Your task to perform on an android device: What's the weather today? Image 0: 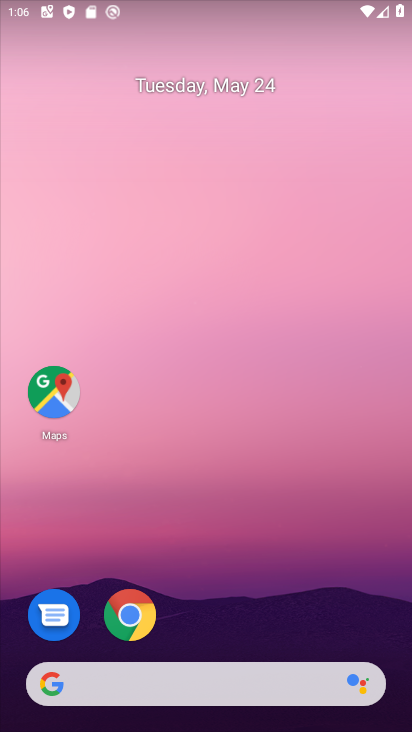
Step 0: press home button
Your task to perform on an android device: What's the weather today? Image 1: 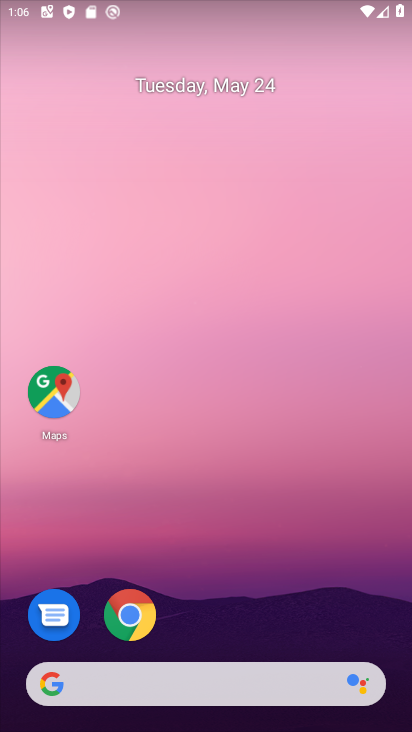
Step 1: drag from (10, 301) to (406, 322)
Your task to perform on an android device: What's the weather today? Image 2: 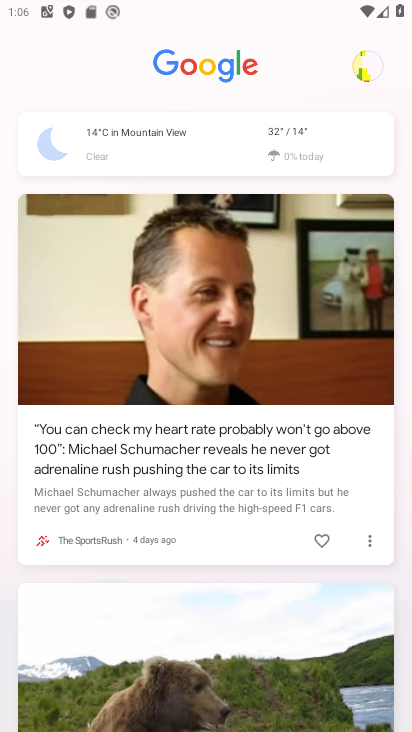
Step 2: drag from (210, 565) to (207, 133)
Your task to perform on an android device: What's the weather today? Image 3: 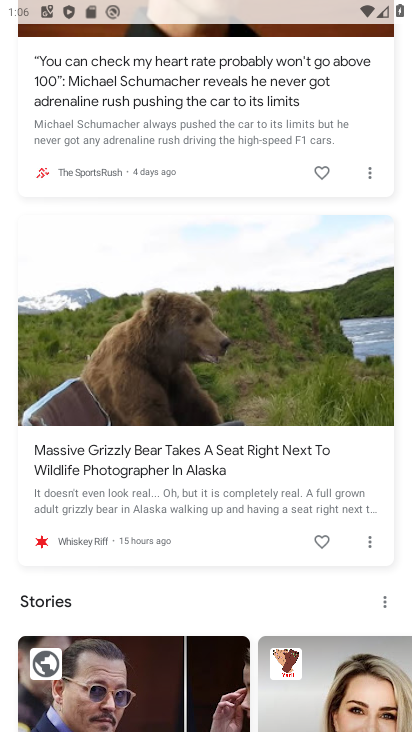
Step 3: drag from (216, 602) to (218, 83)
Your task to perform on an android device: What's the weather today? Image 4: 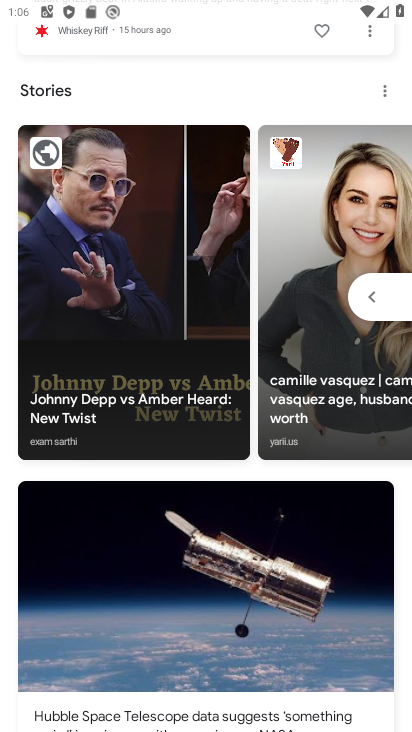
Step 4: drag from (214, 474) to (215, 55)
Your task to perform on an android device: What's the weather today? Image 5: 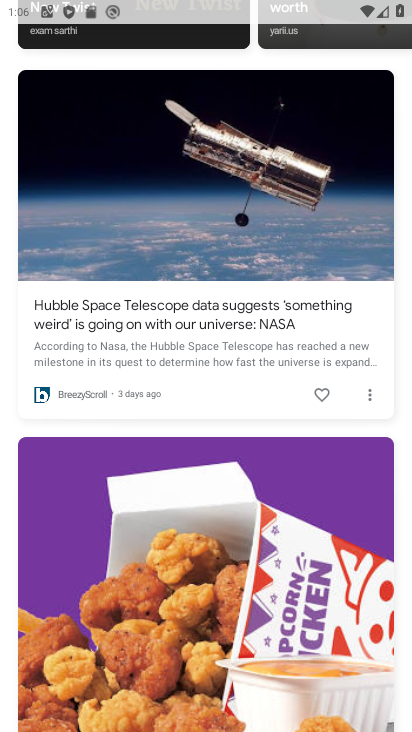
Step 5: drag from (223, 431) to (215, 69)
Your task to perform on an android device: What's the weather today? Image 6: 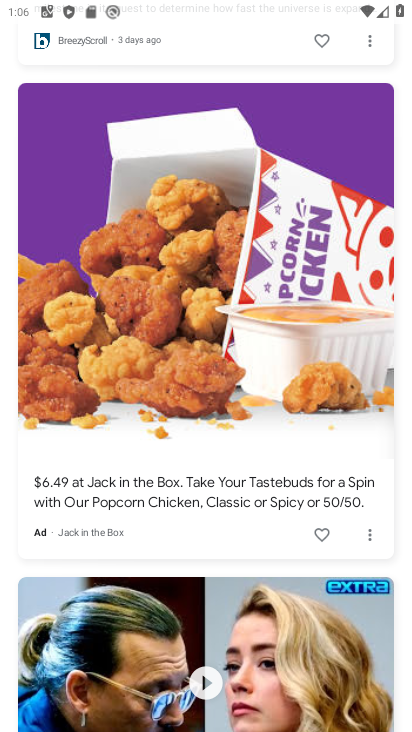
Step 6: drag from (217, 566) to (221, 219)
Your task to perform on an android device: What's the weather today? Image 7: 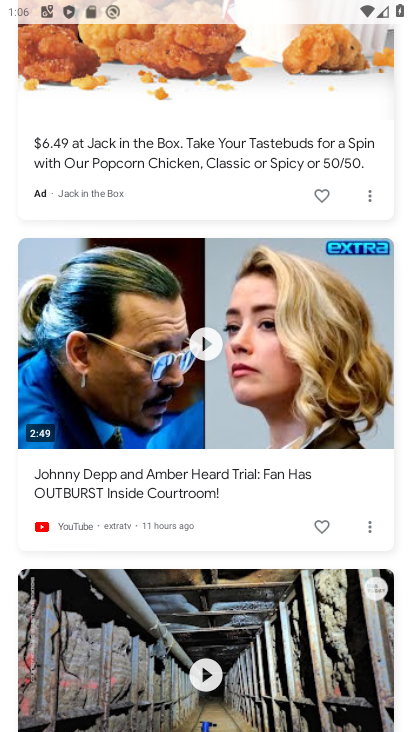
Step 7: drag from (229, 123) to (216, 720)
Your task to perform on an android device: What's the weather today? Image 8: 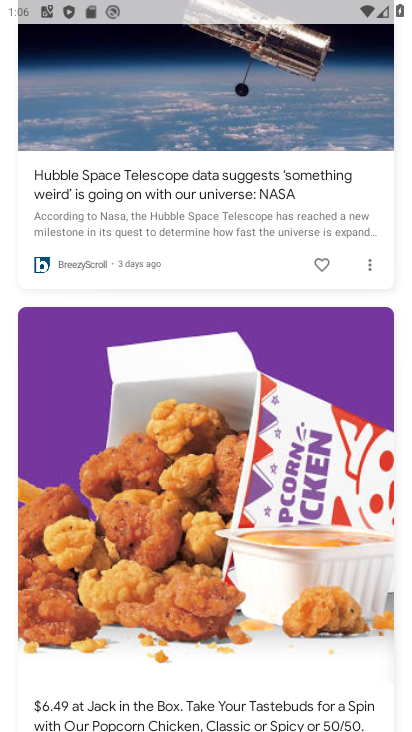
Step 8: drag from (226, 62) to (196, 718)
Your task to perform on an android device: What's the weather today? Image 9: 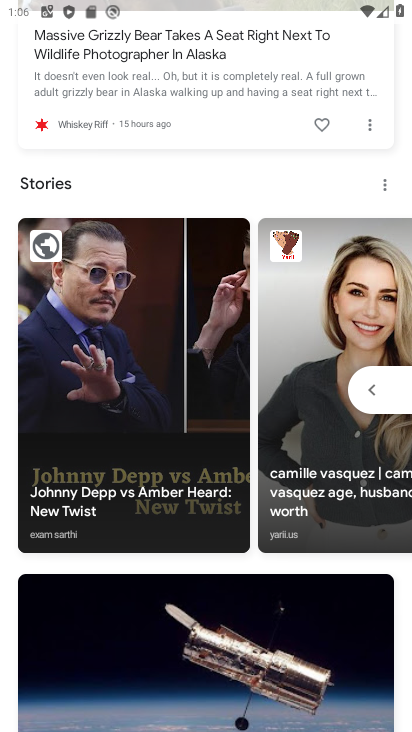
Step 9: drag from (214, 96) to (215, 682)
Your task to perform on an android device: What's the weather today? Image 10: 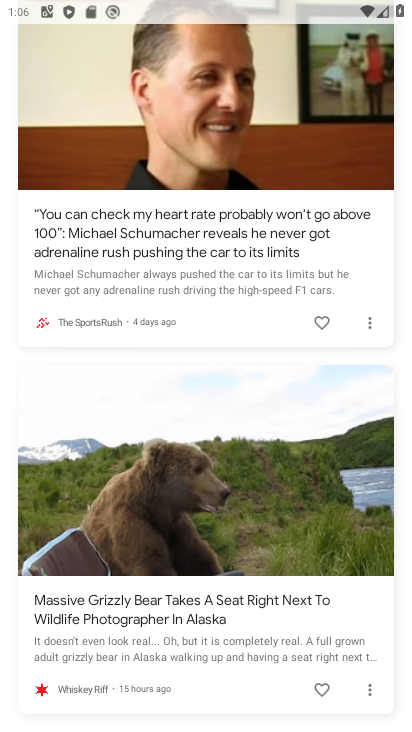
Step 10: drag from (216, 70) to (215, 722)
Your task to perform on an android device: What's the weather today? Image 11: 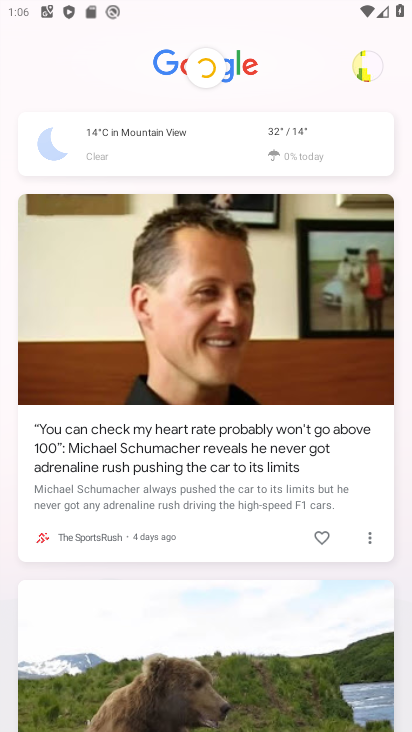
Step 11: click (299, 133)
Your task to perform on an android device: What's the weather today? Image 12: 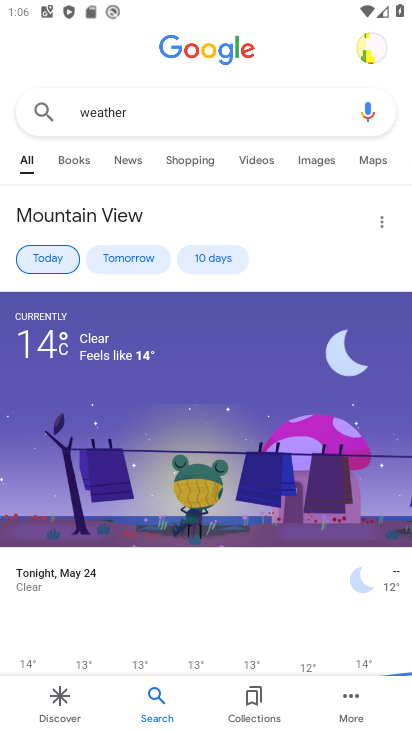
Step 12: task complete